Your task to perform on an android device: Go to display settings Image 0: 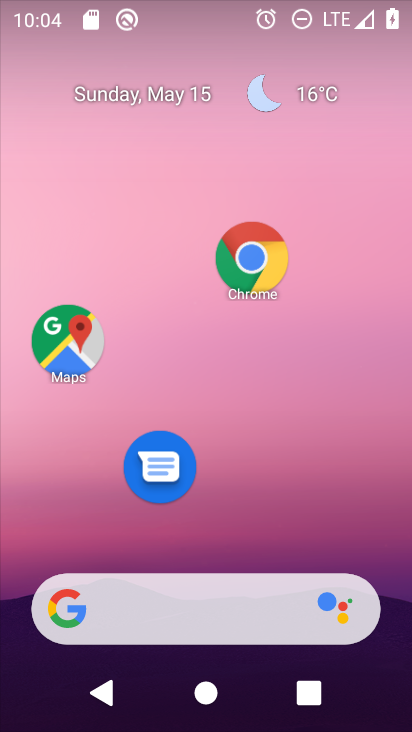
Step 0: drag from (195, 539) to (207, 286)
Your task to perform on an android device: Go to display settings Image 1: 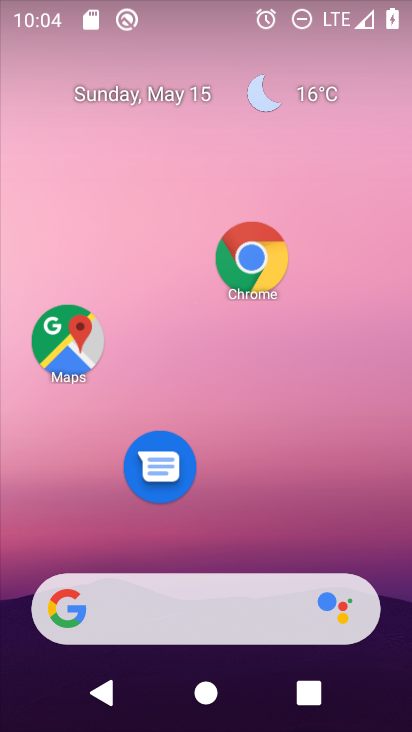
Step 1: drag from (253, 541) to (302, 77)
Your task to perform on an android device: Go to display settings Image 2: 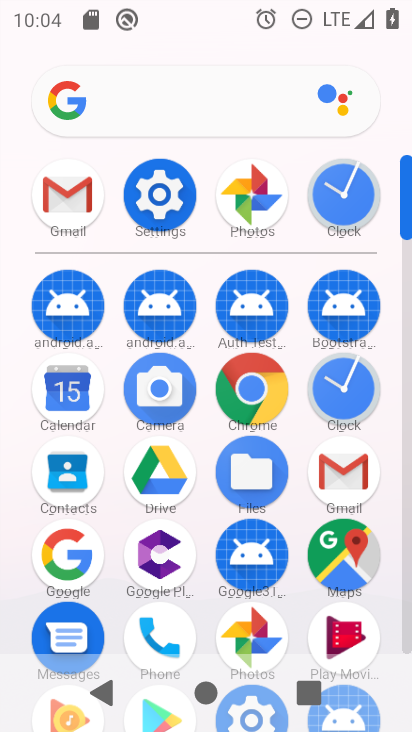
Step 2: click (143, 224)
Your task to perform on an android device: Go to display settings Image 3: 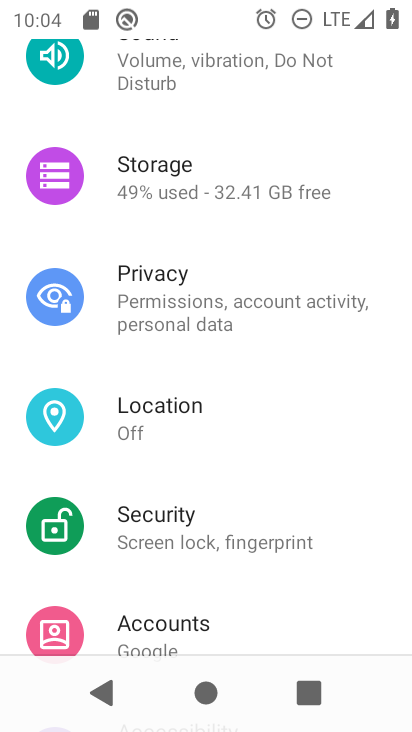
Step 3: drag from (143, 224) to (147, 707)
Your task to perform on an android device: Go to display settings Image 4: 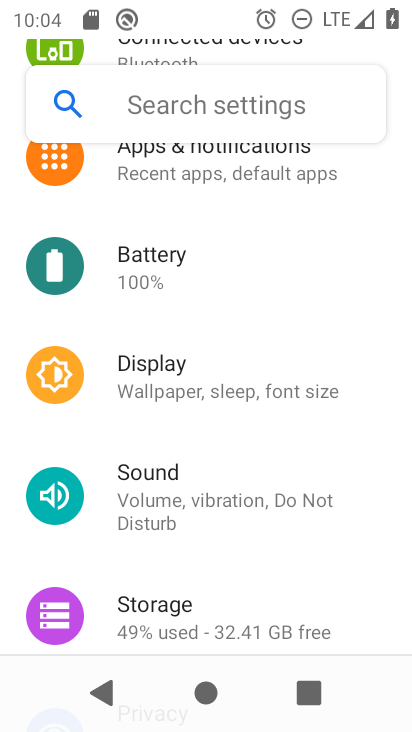
Step 4: click (193, 400)
Your task to perform on an android device: Go to display settings Image 5: 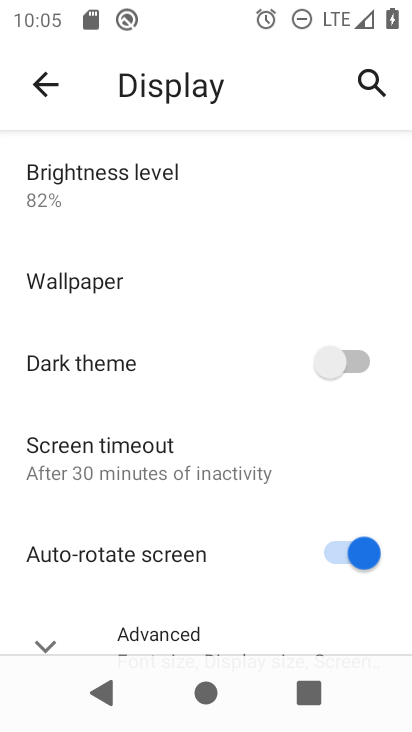
Step 5: task complete